Your task to perform on an android device: open a bookmark in the chrome app Image 0: 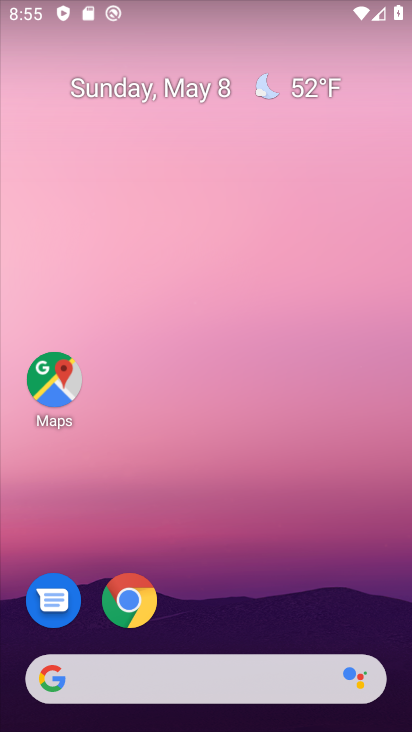
Step 0: click (136, 607)
Your task to perform on an android device: open a bookmark in the chrome app Image 1: 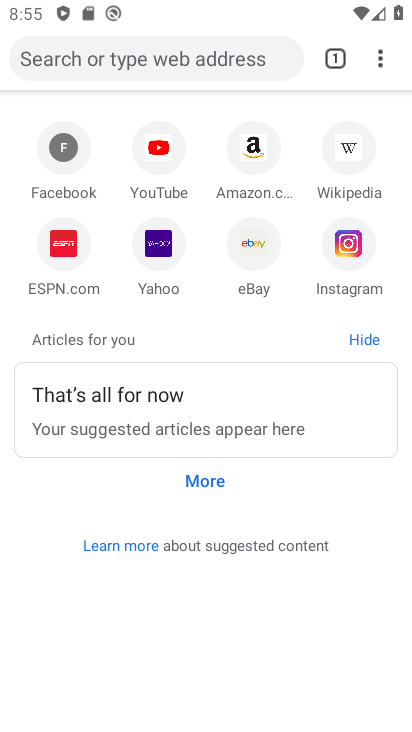
Step 1: drag from (382, 52) to (251, 238)
Your task to perform on an android device: open a bookmark in the chrome app Image 2: 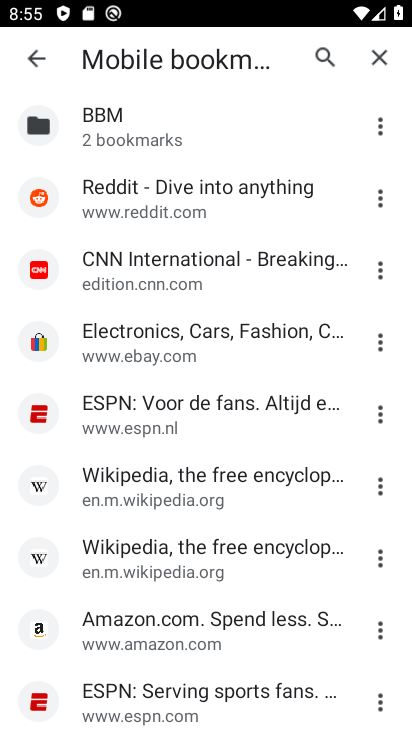
Step 2: click (222, 275)
Your task to perform on an android device: open a bookmark in the chrome app Image 3: 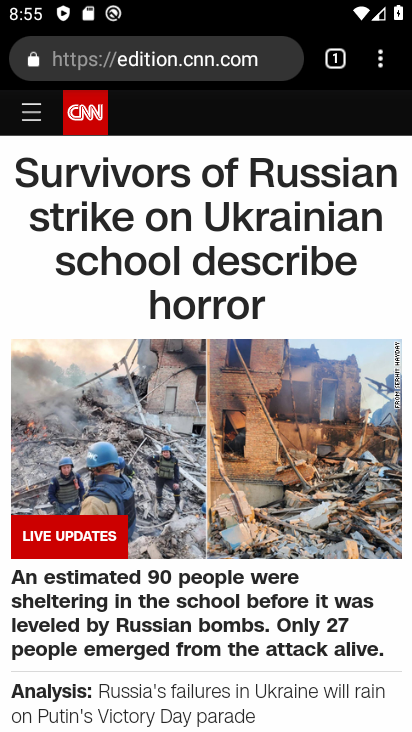
Step 3: task complete